Your task to perform on an android device: turn pop-ups off in chrome Image 0: 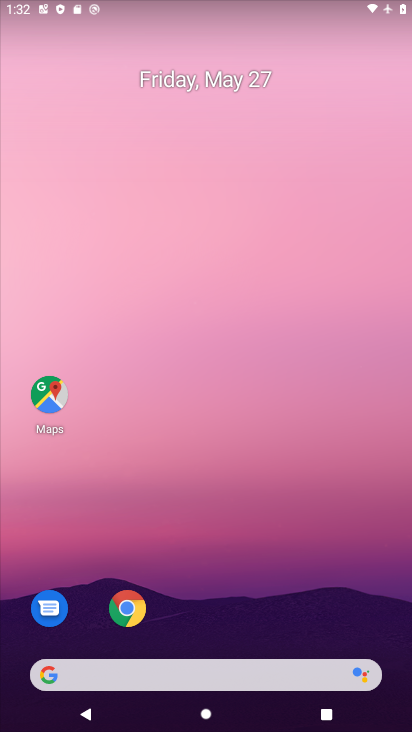
Step 0: press home button
Your task to perform on an android device: turn pop-ups off in chrome Image 1: 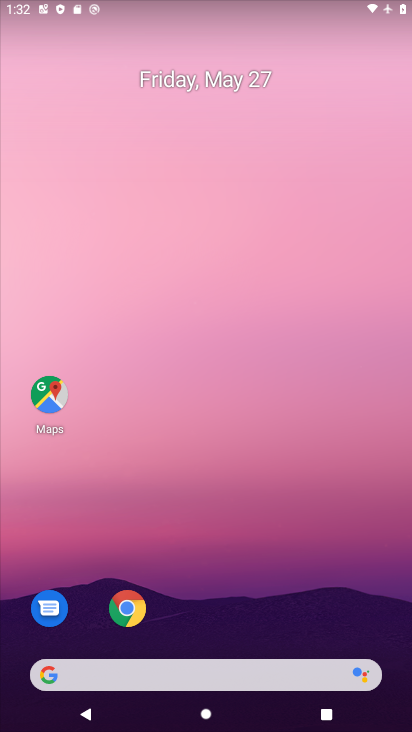
Step 1: click (128, 608)
Your task to perform on an android device: turn pop-ups off in chrome Image 2: 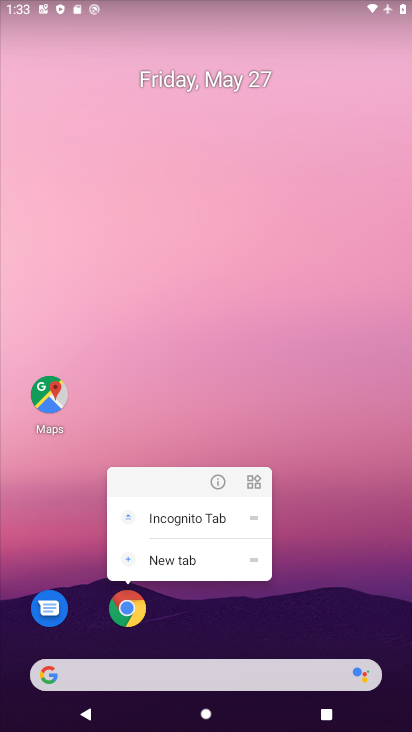
Step 2: click (130, 612)
Your task to perform on an android device: turn pop-ups off in chrome Image 3: 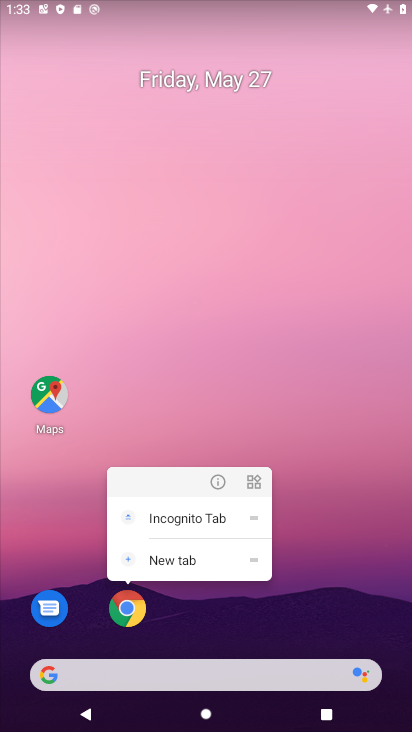
Step 3: click (130, 613)
Your task to perform on an android device: turn pop-ups off in chrome Image 4: 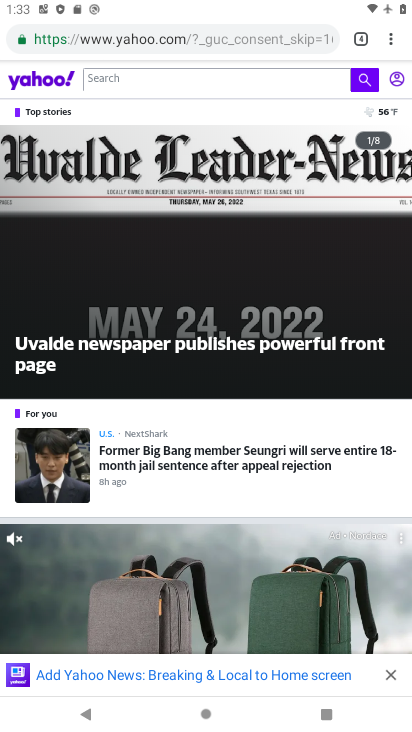
Step 4: drag from (385, 33) to (268, 477)
Your task to perform on an android device: turn pop-ups off in chrome Image 5: 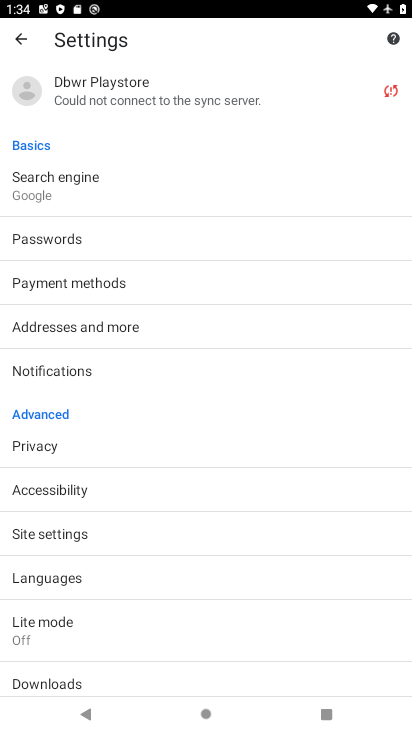
Step 5: click (55, 541)
Your task to perform on an android device: turn pop-ups off in chrome Image 6: 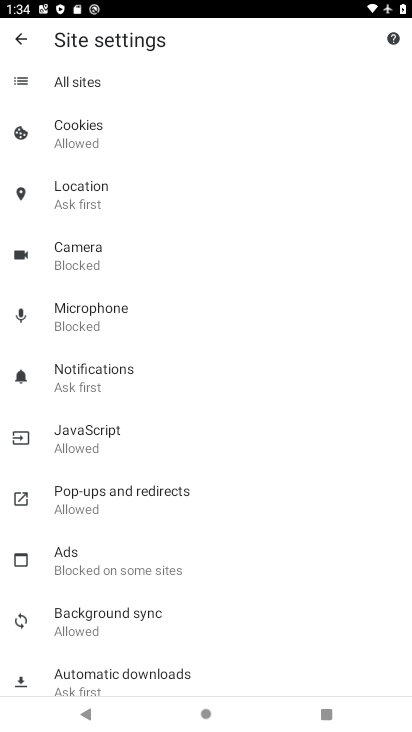
Step 6: click (105, 503)
Your task to perform on an android device: turn pop-ups off in chrome Image 7: 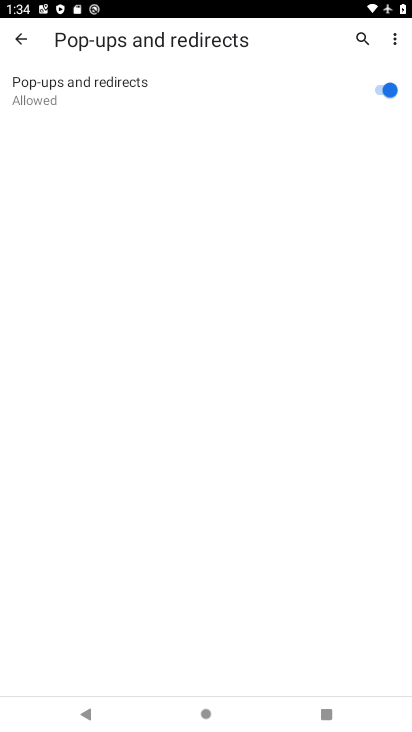
Step 7: click (378, 84)
Your task to perform on an android device: turn pop-ups off in chrome Image 8: 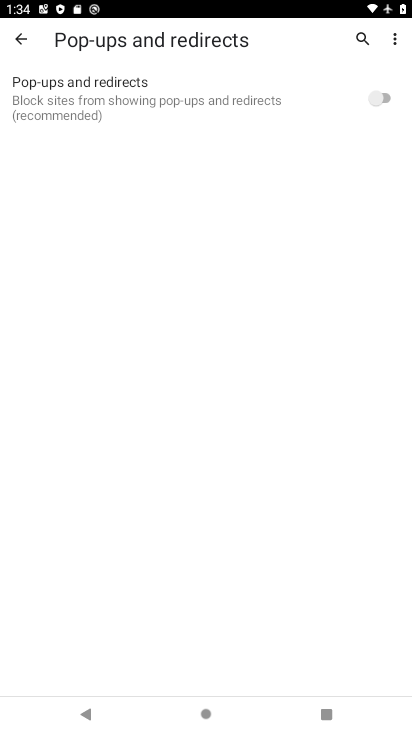
Step 8: task complete